Your task to perform on an android device: open chrome and create a bookmark for the current page Image 0: 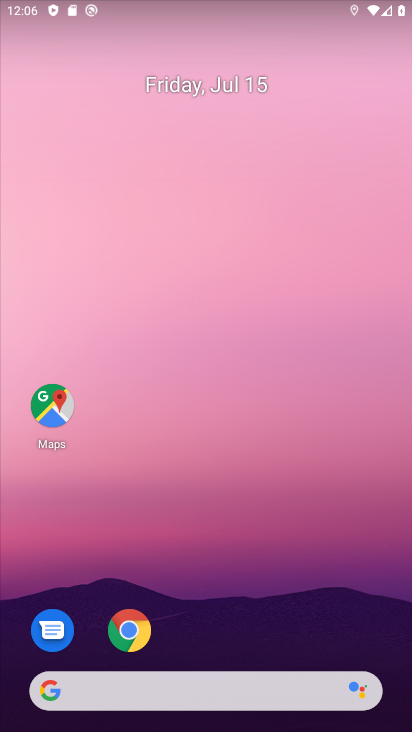
Step 0: drag from (188, 522) to (193, 9)
Your task to perform on an android device: open chrome and create a bookmark for the current page Image 1: 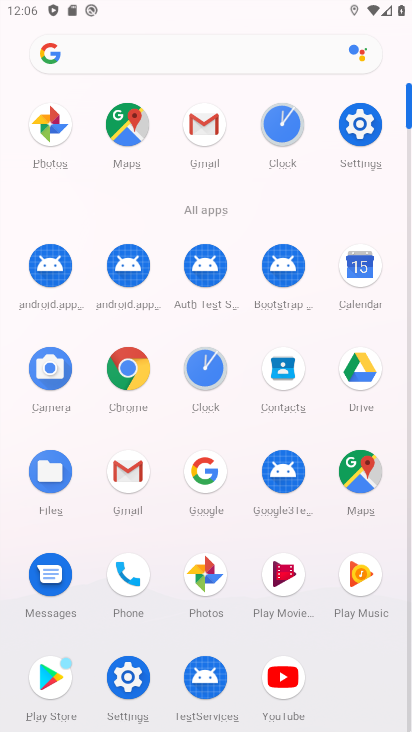
Step 1: click (132, 369)
Your task to perform on an android device: open chrome and create a bookmark for the current page Image 2: 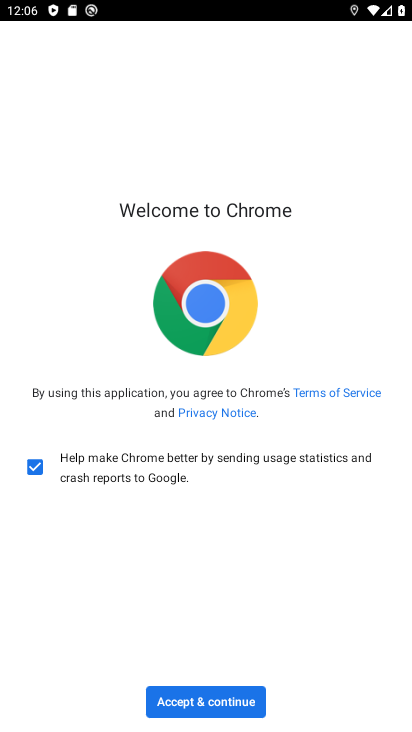
Step 2: click (178, 697)
Your task to perform on an android device: open chrome and create a bookmark for the current page Image 3: 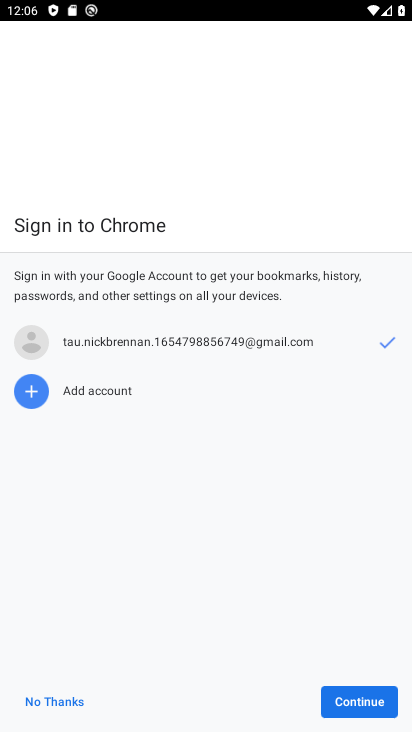
Step 3: click (341, 697)
Your task to perform on an android device: open chrome and create a bookmark for the current page Image 4: 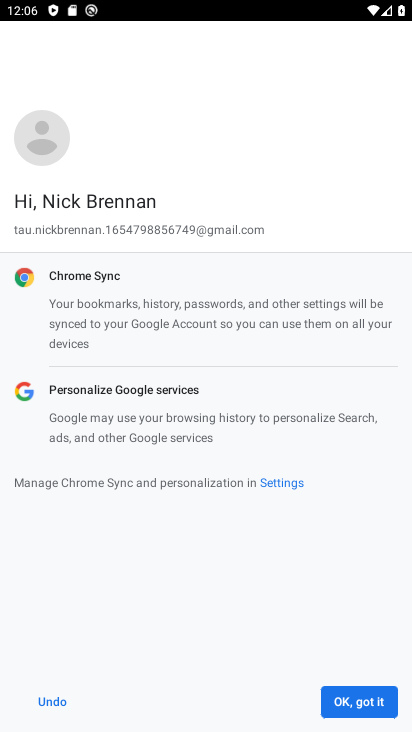
Step 4: click (341, 697)
Your task to perform on an android device: open chrome and create a bookmark for the current page Image 5: 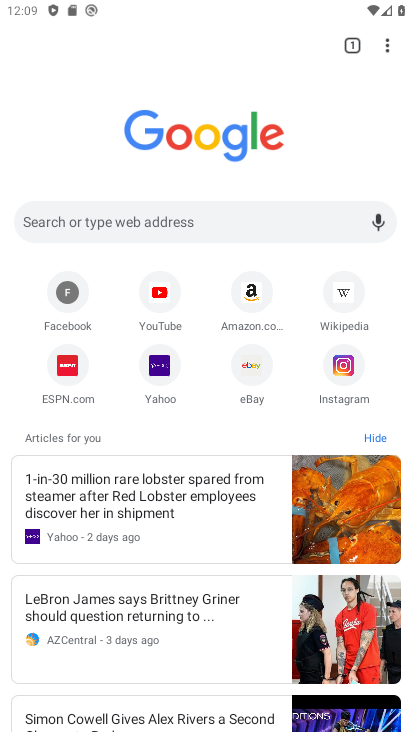
Step 5: click (385, 44)
Your task to perform on an android device: open chrome and create a bookmark for the current page Image 6: 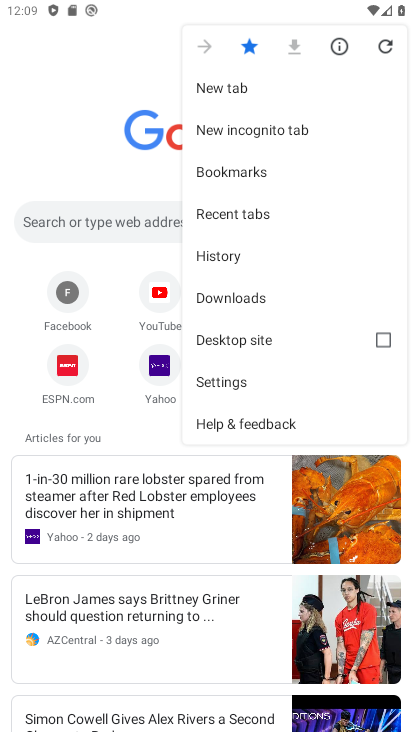
Step 6: task complete